Your task to perform on an android device: Search for a new desk on IKEA Image 0: 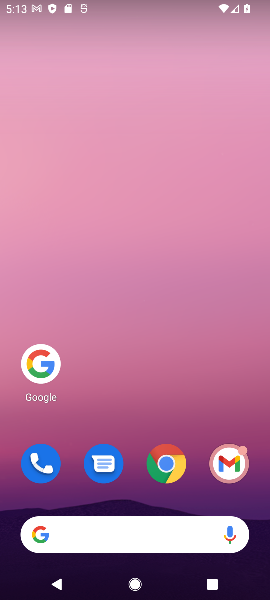
Step 0: click (40, 359)
Your task to perform on an android device: Search for a new desk on IKEA Image 1: 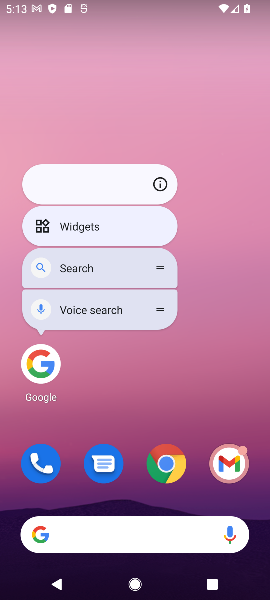
Step 1: click (58, 359)
Your task to perform on an android device: Search for a new desk on IKEA Image 2: 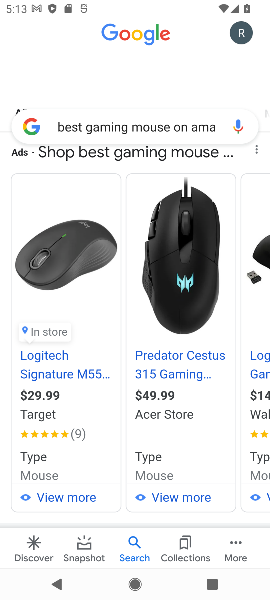
Step 2: click (204, 124)
Your task to perform on an android device: Search for a new desk on IKEA Image 3: 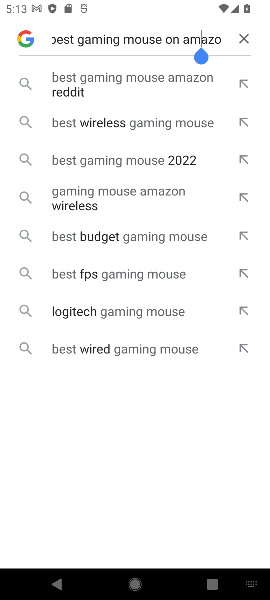
Step 3: click (242, 37)
Your task to perform on an android device: Search for a new desk on IKEA Image 4: 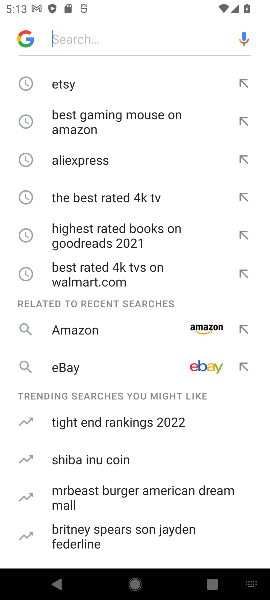
Step 4: click (125, 33)
Your task to perform on an android device: Search for a new desk on IKEA Image 5: 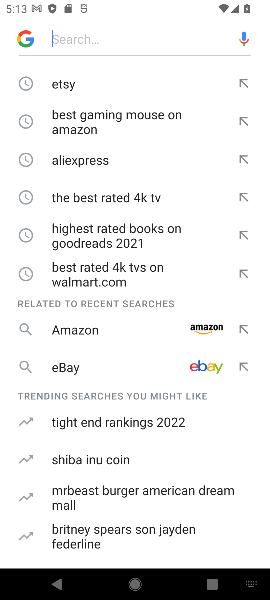
Step 5: type "a new desk on IKEA "
Your task to perform on an android device: Search for a new desk on IKEA Image 6: 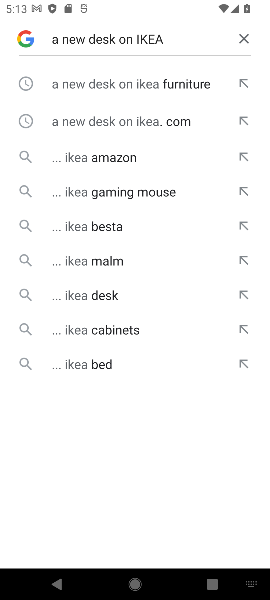
Step 6: click (72, 81)
Your task to perform on an android device: Search for a new desk on IKEA Image 7: 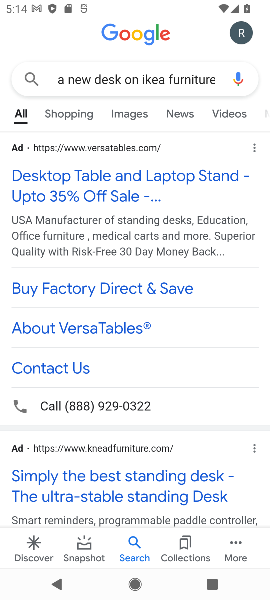
Step 7: click (82, 181)
Your task to perform on an android device: Search for a new desk on IKEA Image 8: 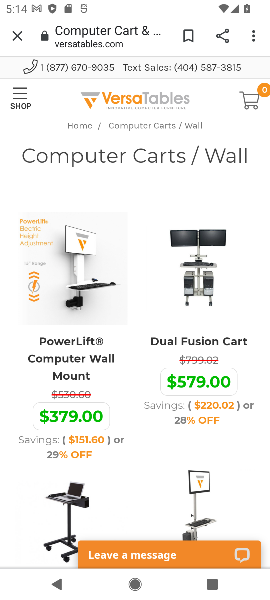
Step 8: drag from (115, 355) to (131, 120)
Your task to perform on an android device: Search for a new desk on IKEA Image 9: 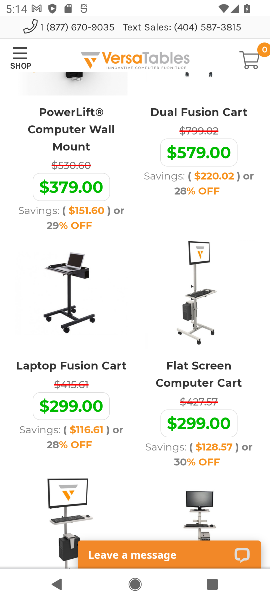
Step 9: press back button
Your task to perform on an android device: Search for a new desk on IKEA Image 10: 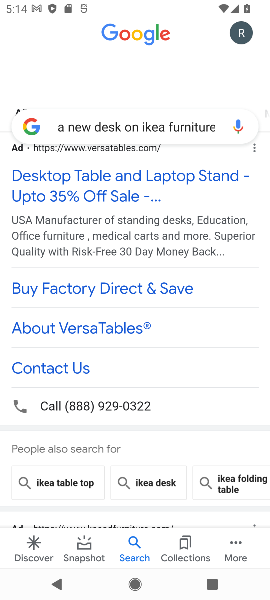
Step 10: drag from (132, 479) to (168, 206)
Your task to perform on an android device: Search for a new desk on IKEA Image 11: 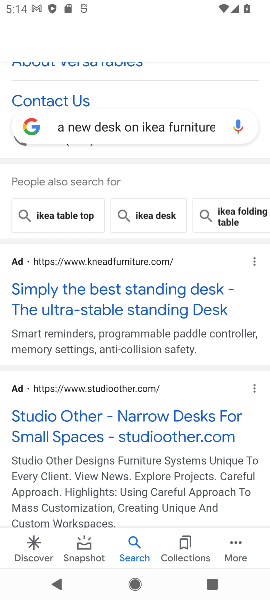
Step 11: drag from (120, 494) to (167, 218)
Your task to perform on an android device: Search for a new desk on IKEA Image 12: 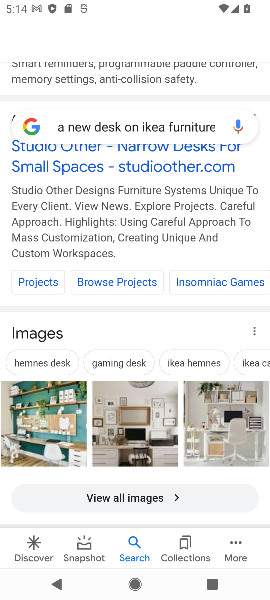
Step 12: drag from (94, 486) to (127, 105)
Your task to perform on an android device: Search for a new desk on IKEA Image 13: 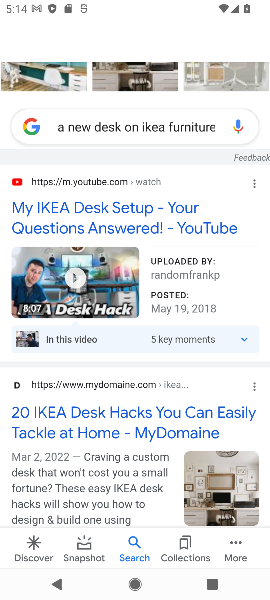
Step 13: drag from (129, 461) to (189, 197)
Your task to perform on an android device: Search for a new desk on IKEA Image 14: 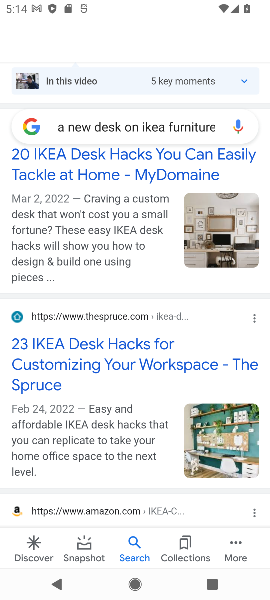
Step 14: click (87, 343)
Your task to perform on an android device: Search for a new desk on IKEA Image 15: 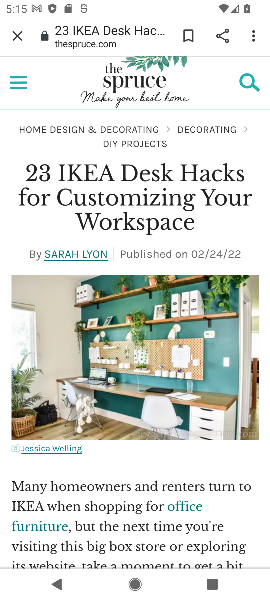
Step 15: task complete